Your task to perform on an android device: open a bookmark in the chrome app Image 0: 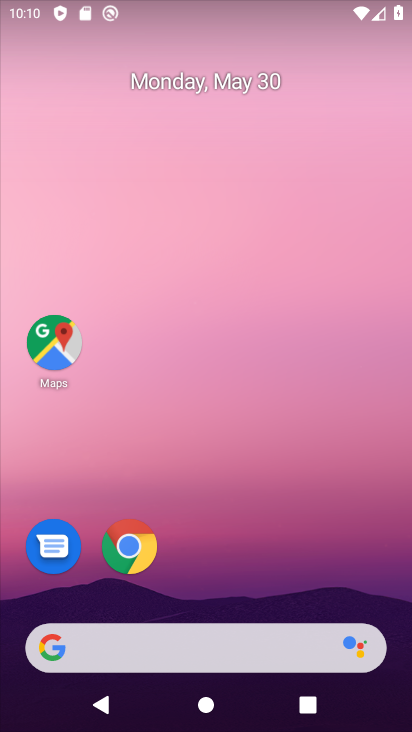
Step 0: click (125, 542)
Your task to perform on an android device: open a bookmark in the chrome app Image 1: 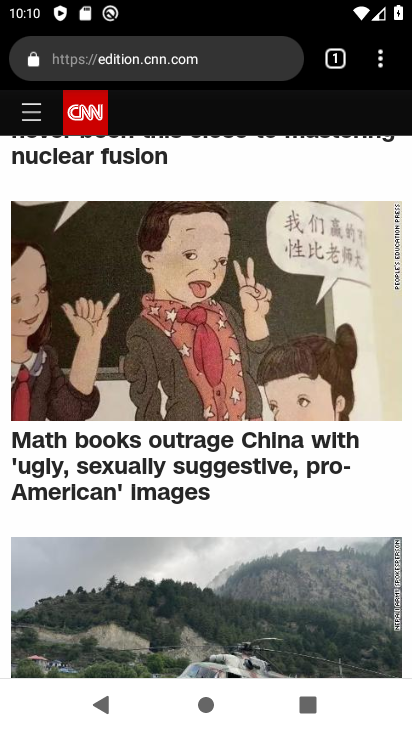
Step 1: click (385, 52)
Your task to perform on an android device: open a bookmark in the chrome app Image 2: 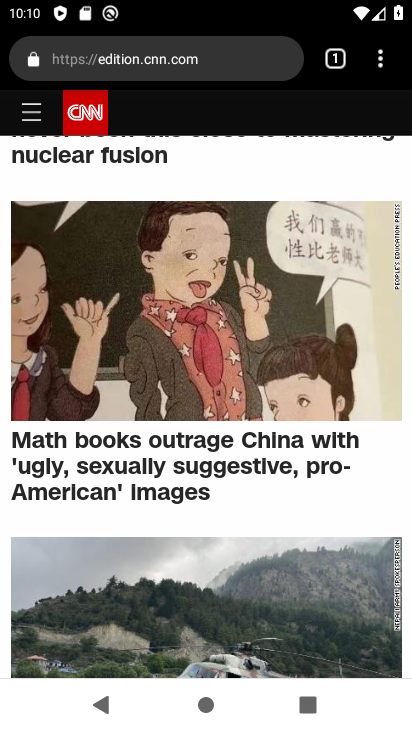
Step 2: click (387, 59)
Your task to perform on an android device: open a bookmark in the chrome app Image 3: 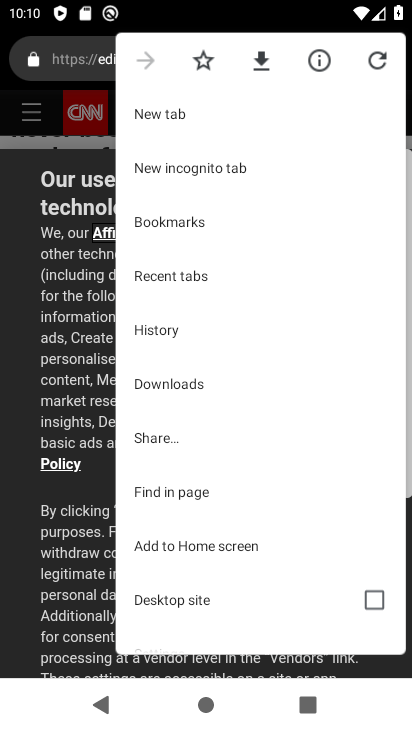
Step 3: click (208, 227)
Your task to perform on an android device: open a bookmark in the chrome app Image 4: 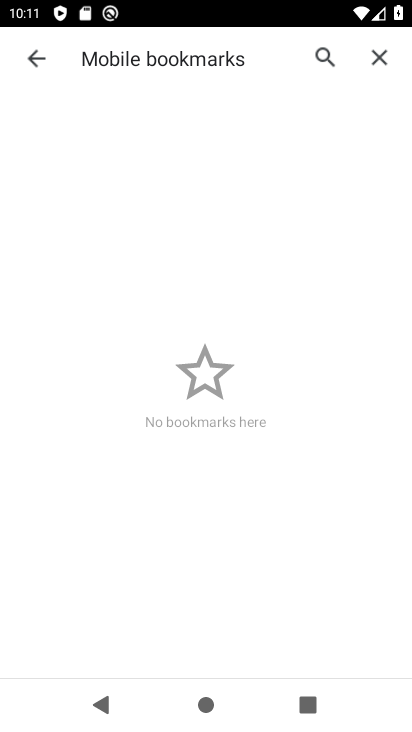
Step 4: task complete